Your task to perform on an android device: turn on improve location accuracy Image 0: 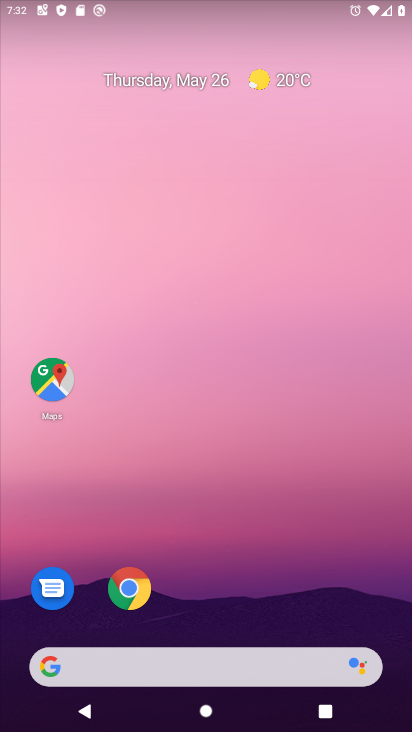
Step 0: drag from (375, 613) to (273, 28)
Your task to perform on an android device: turn on improve location accuracy Image 1: 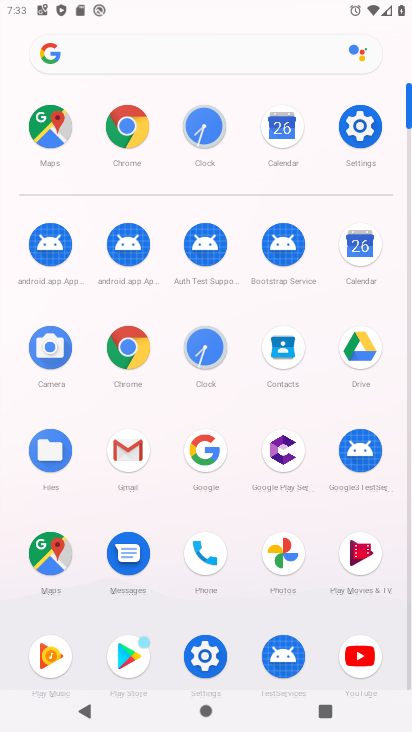
Step 1: click (212, 652)
Your task to perform on an android device: turn on improve location accuracy Image 2: 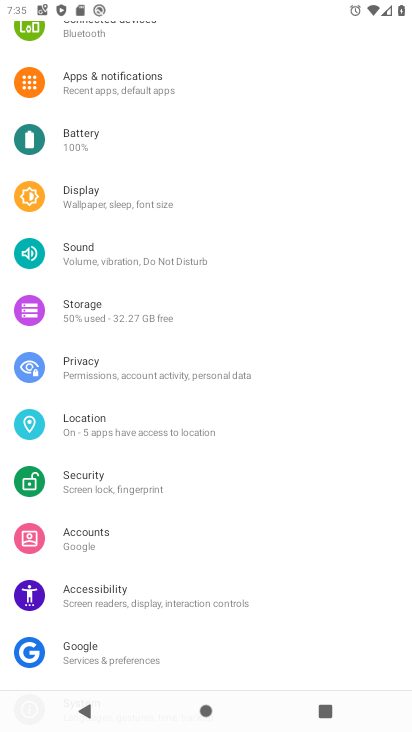
Step 2: click (106, 425)
Your task to perform on an android device: turn on improve location accuracy Image 3: 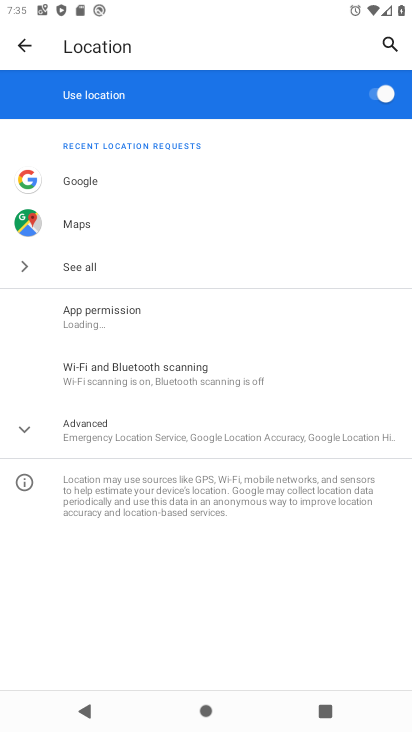
Step 3: click (133, 417)
Your task to perform on an android device: turn on improve location accuracy Image 4: 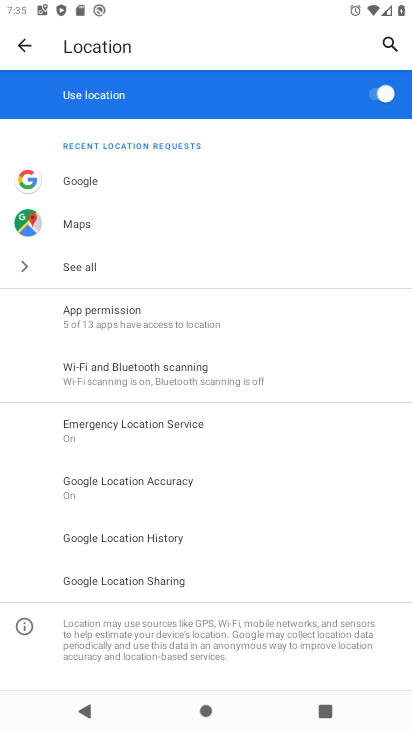
Step 4: click (130, 481)
Your task to perform on an android device: turn on improve location accuracy Image 5: 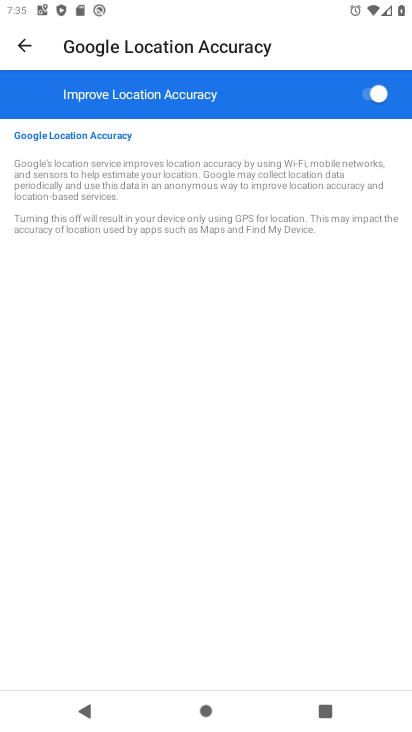
Step 5: task complete